Your task to perform on an android device: Go to Wikipedia Image 0: 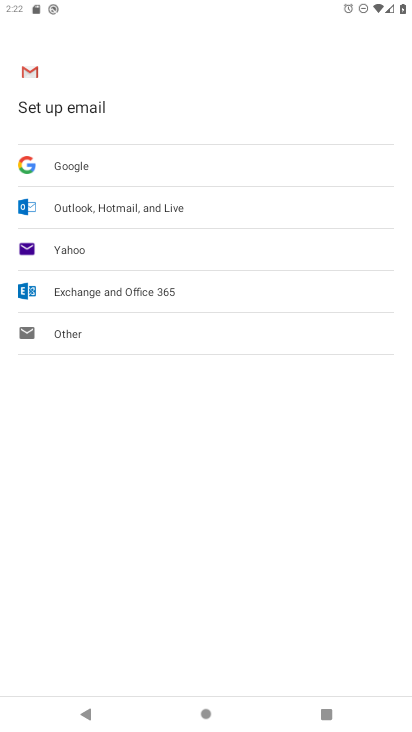
Step 0: press back button
Your task to perform on an android device: Go to Wikipedia Image 1: 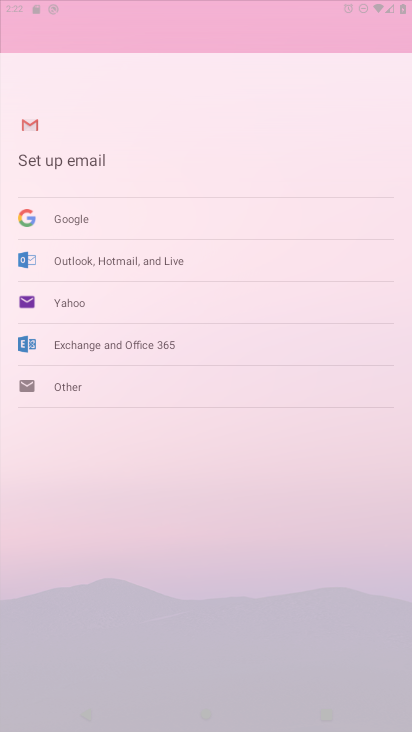
Step 1: press back button
Your task to perform on an android device: Go to Wikipedia Image 2: 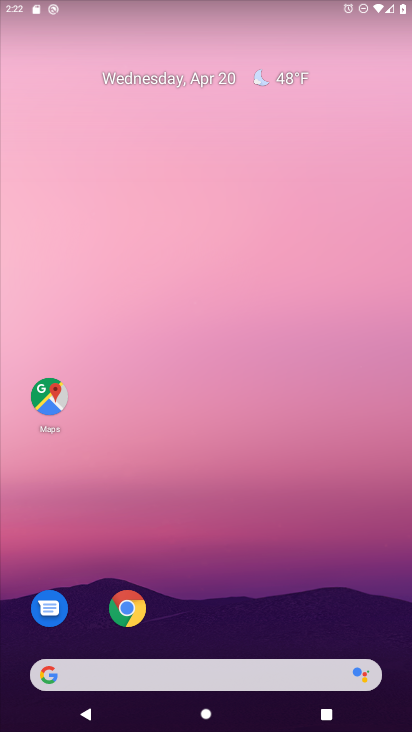
Step 2: drag from (317, 570) to (191, 183)
Your task to perform on an android device: Go to Wikipedia Image 3: 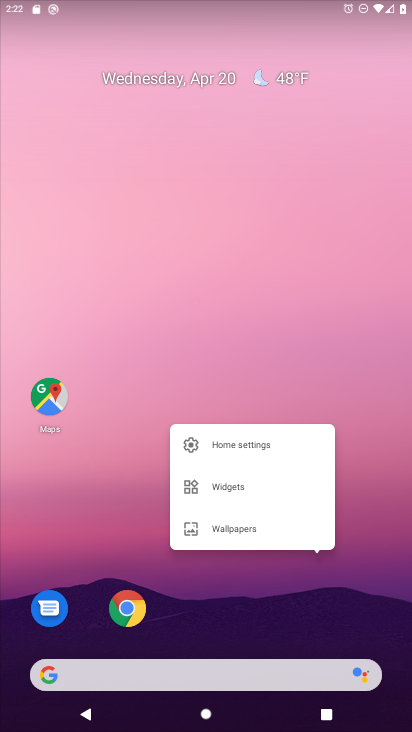
Step 3: drag from (100, 465) to (105, 425)
Your task to perform on an android device: Go to Wikipedia Image 4: 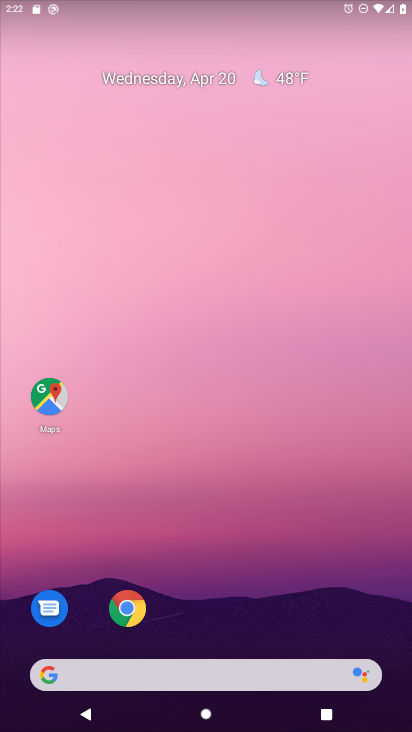
Step 4: click (135, 597)
Your task to perform on an android device: Go to Wikipedia Image 5: 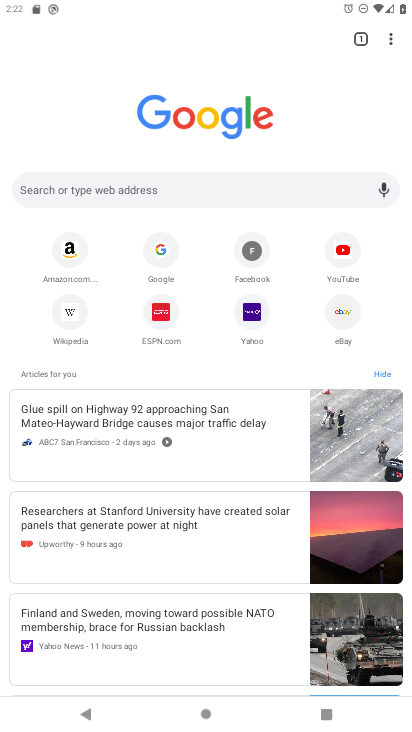
Step 5: click (70, 321)
Your task to perform on an android device: Go to Wikipedia Image 6: 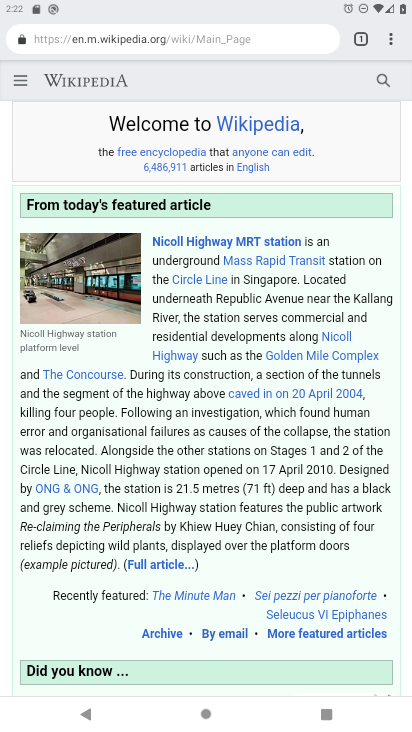
Step 6: task complete